Your task to perform on an android device: Go to Maps Image 0: 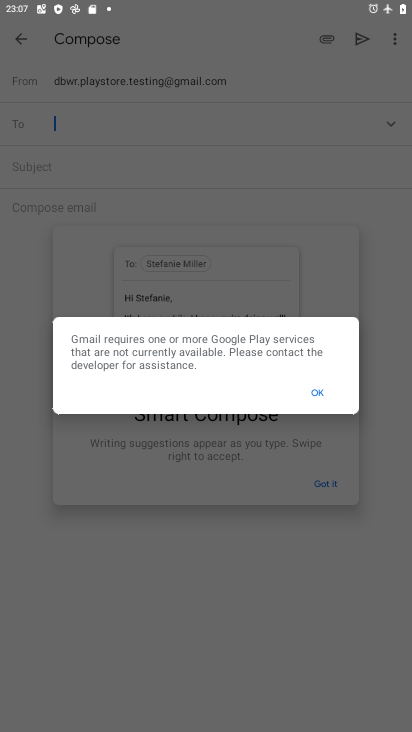
Step 0: press home button
Your task to perform on an android device: Go to Maps Image 1: 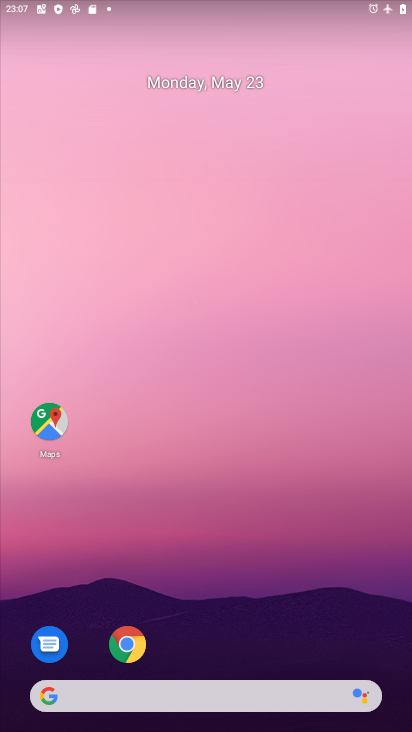
Step 1: drag from (168, 728) to (308, 109)
Your task to perform on an android device: Go to Maps Image 2: 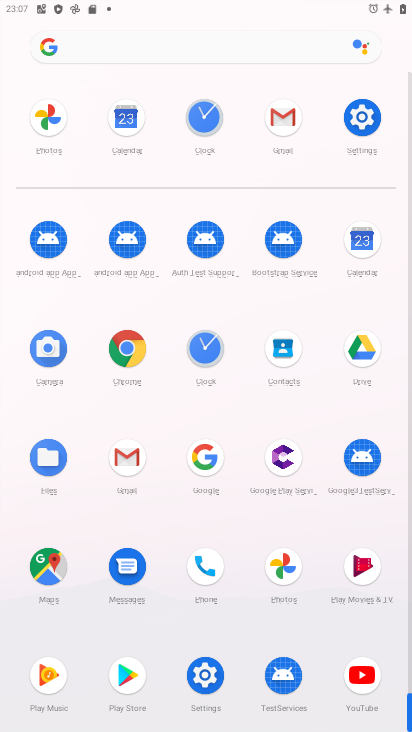
Step 2: click (62, 566)
Your task to perform on an android device: Go to Maps Image 3: 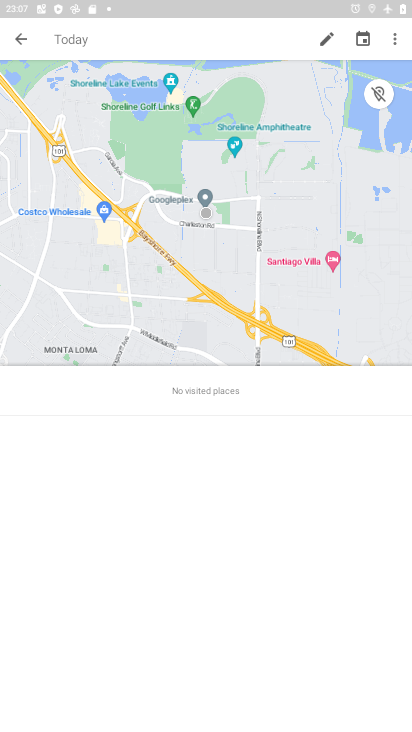
Step 3: task complete